Your task to perform on an android device: Clear the shopping cart on newegg. Add logitech g910 to the cart on newegg Image 0: 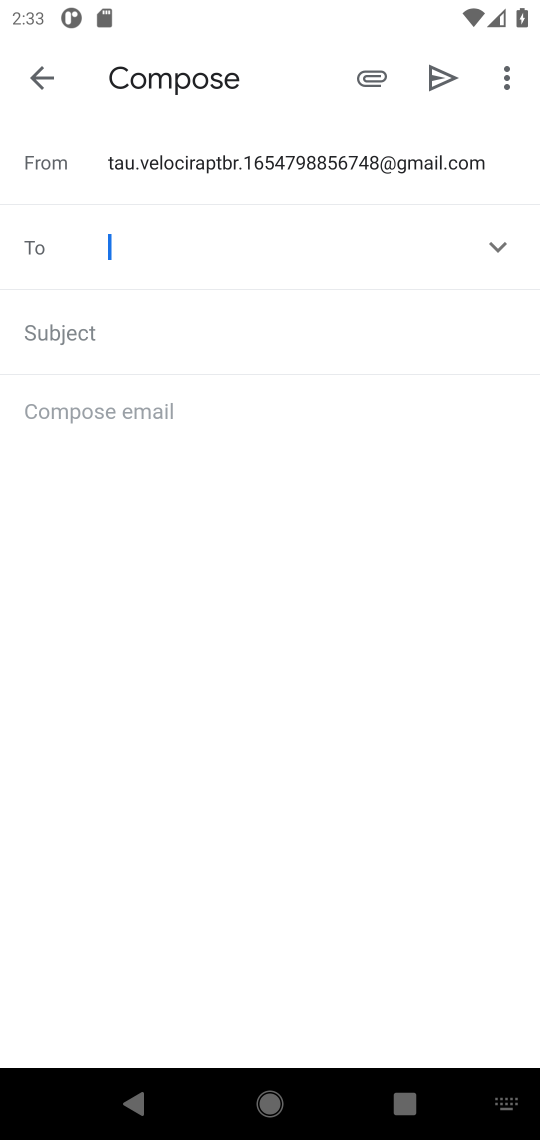
Step 0: press home button
Your task to perform on an android device: Clear the shopping cart on newegg. Add logitech g910 to the cart on newegg Image 1: 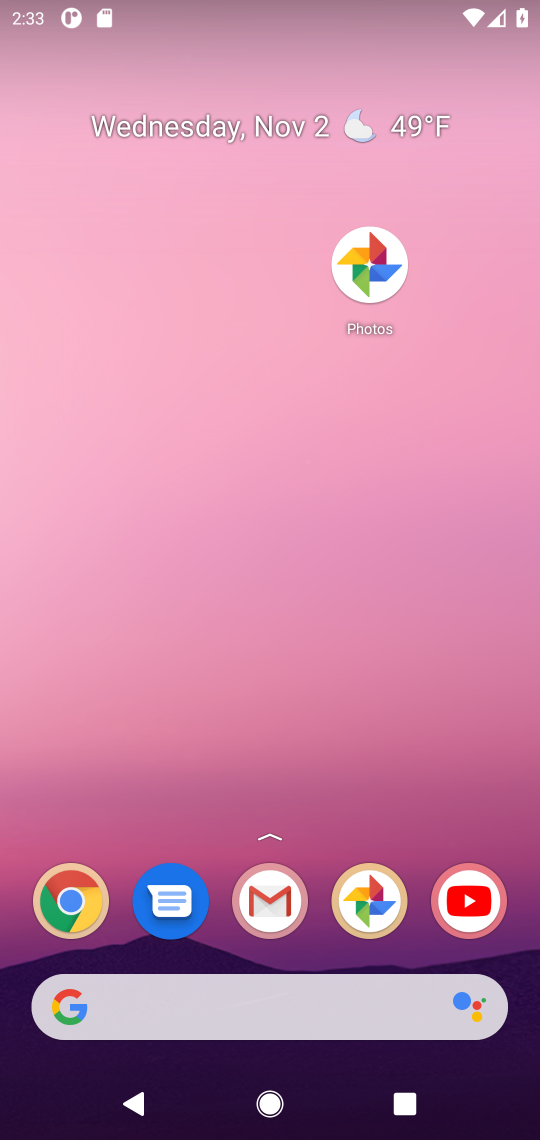
Step 1: drag from (333, 946) to (411, 85)
Your task to perform on an android device: Clear the shopping cart on newegg. Add logitech g910 to the cart on newegg Image 2: 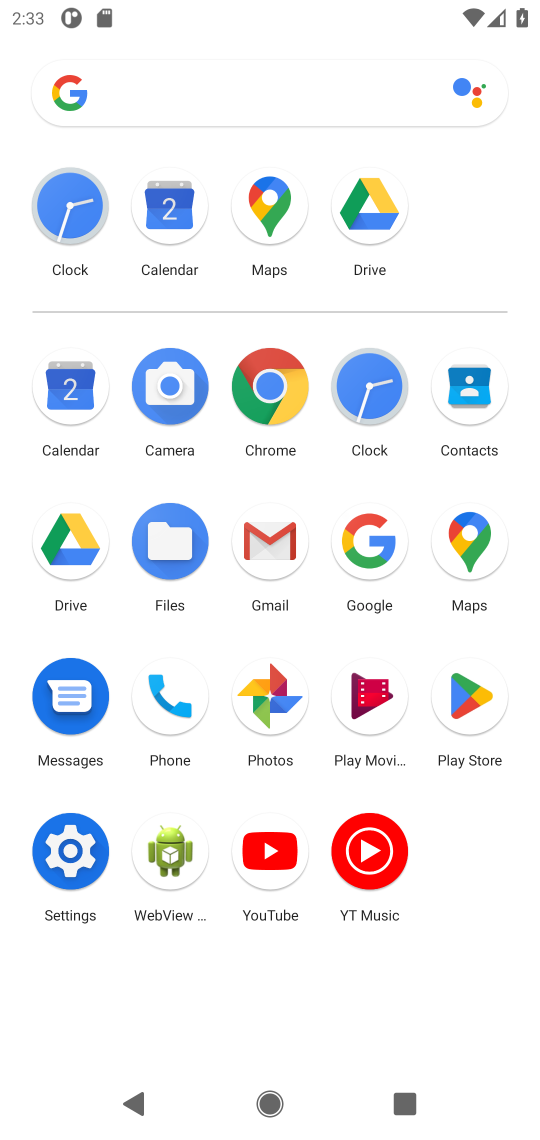
Step 2: click (279, 385)
Your task to perform on an android device: Clear the shopping cart on newegg. Add logitech g910 to the cart on newegg Image 3: 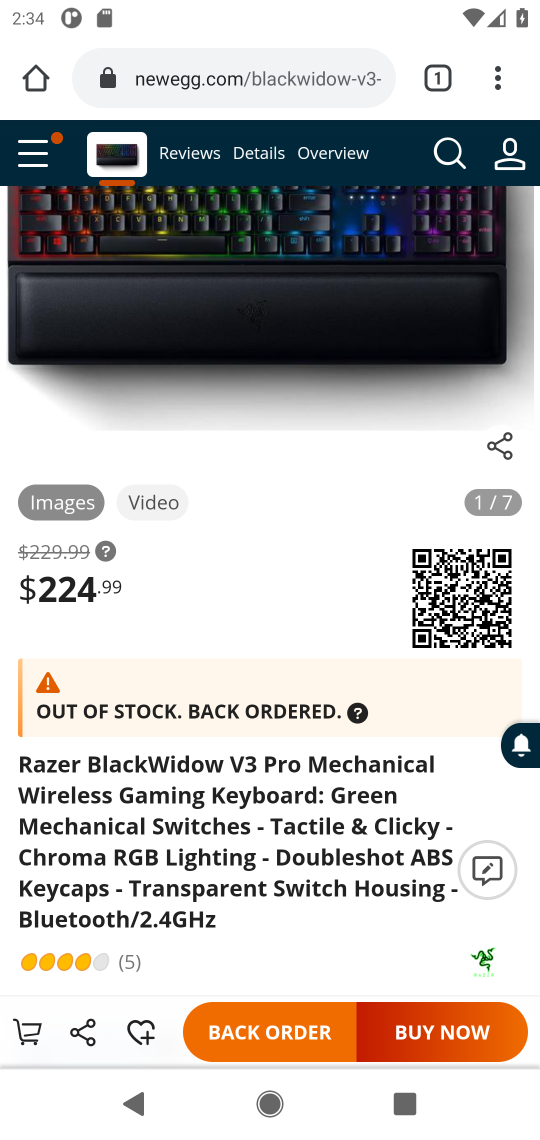
Step 3: drag from (379, 334) to (340, 835)
Your task to perform on an android device: Clear the shopping cart on newegg. Add logitech g910 to the cart on newegg Image 4: 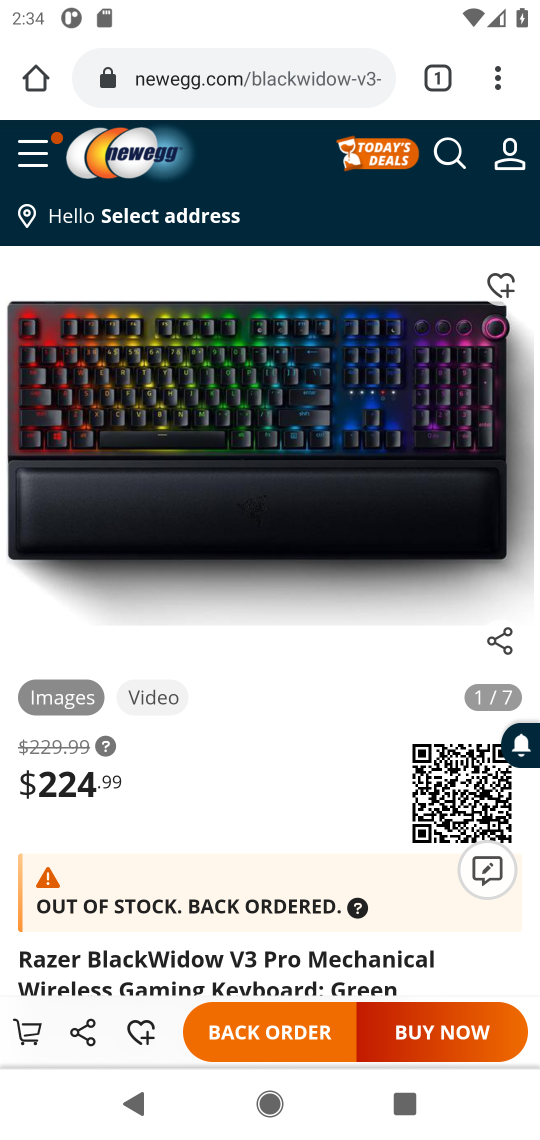
Step 4: click (43, 153)
Your task to perform on an android device: Clear the shopping cart on newegg. Add logitech g910 to the cart on newegg Image 5: 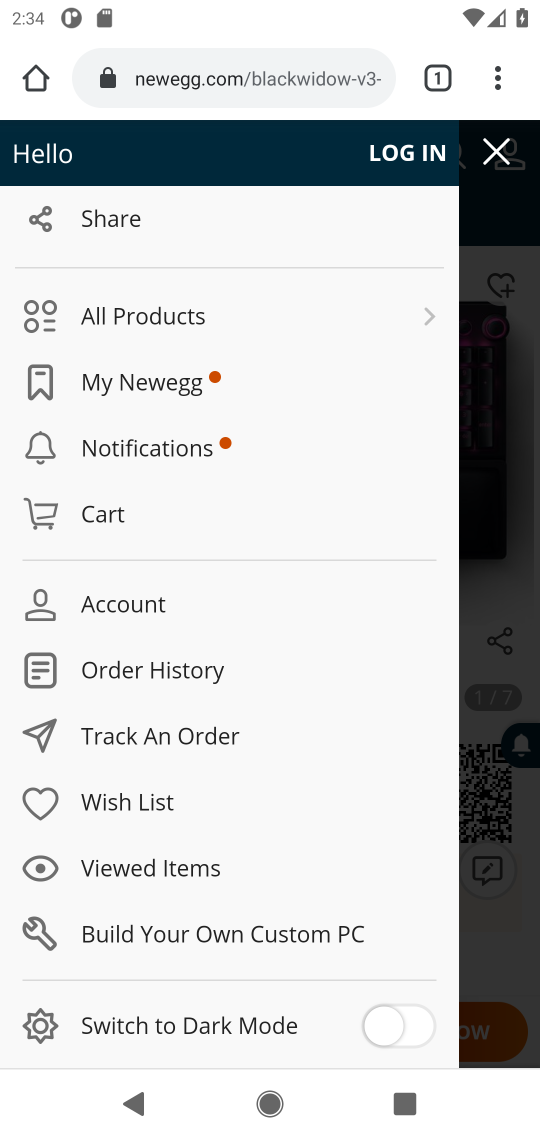
Step 5: click (112, 518)
Your task to perform on an android device: Clear the shopping cart on newegg. Add logitech g910 to the cart on newegg Image 6: 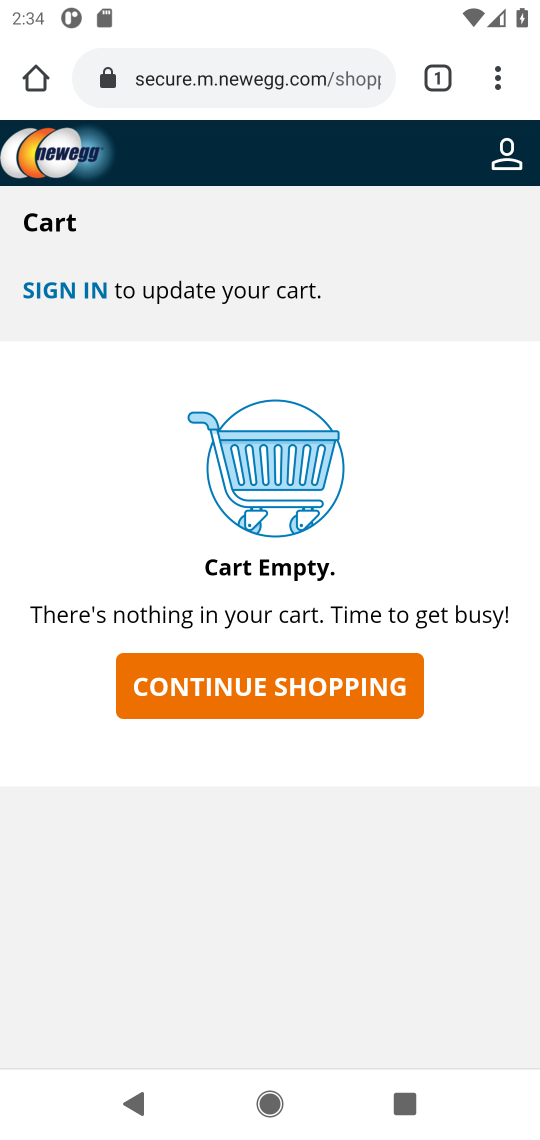
Step 6: click (346, 695)
Your task to perform on an android device: Clear the shopping cart on newegg. Add logitech g910 to the cart on newegg Image 7: 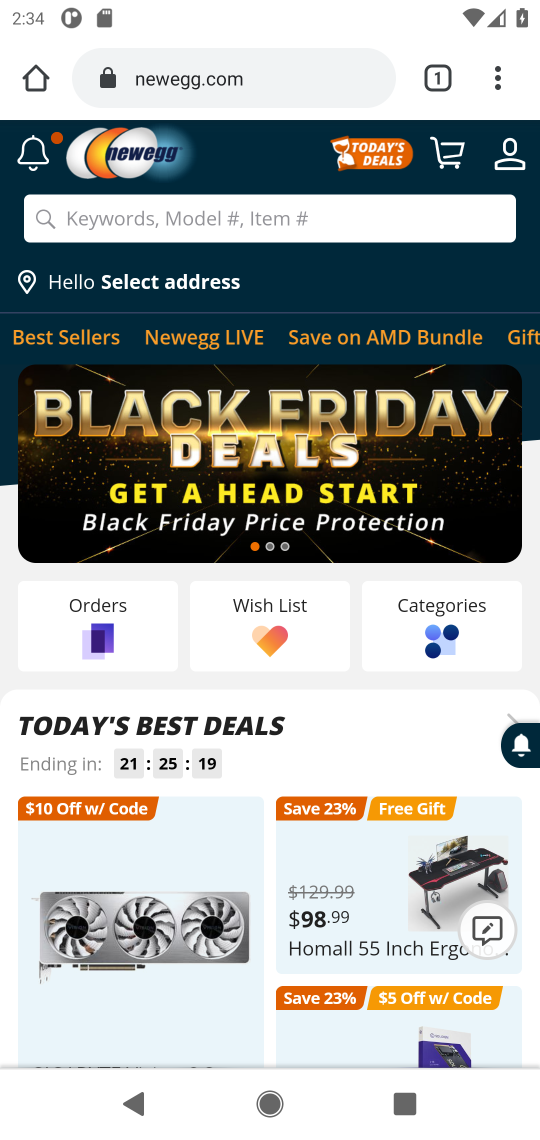
Step 7: click (344, 223)
Your task to perform on an android device: Clear the shopping cart on newegg. Add logitech g910 to the cart on newegg Image 8: 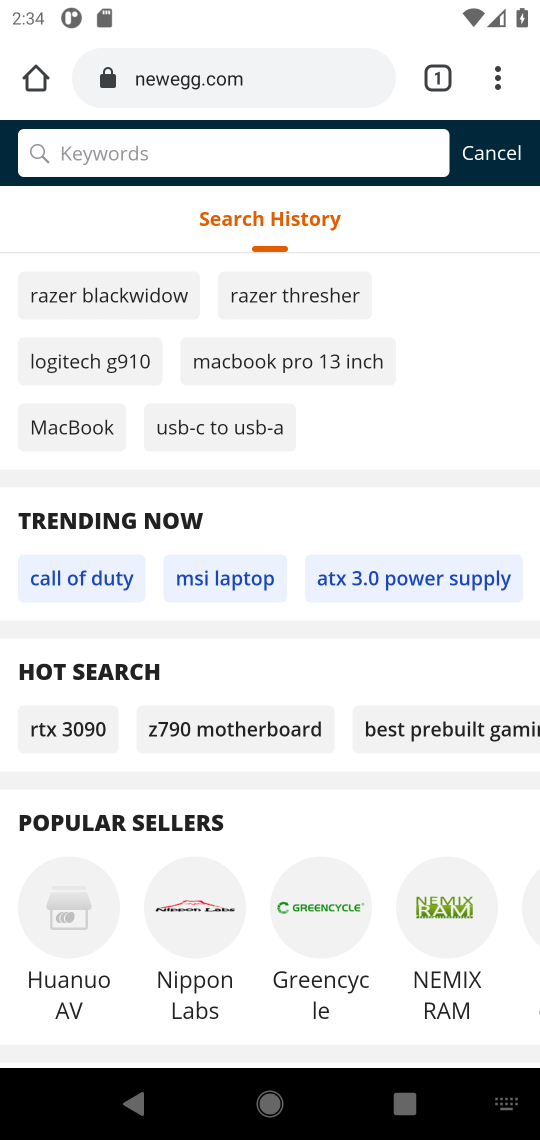
Step 8: type "logitech g910"
Your task to perform on an android device: Clear the shopping cart on newegg. Add logitech g910 to the cart on newegg Image 9: 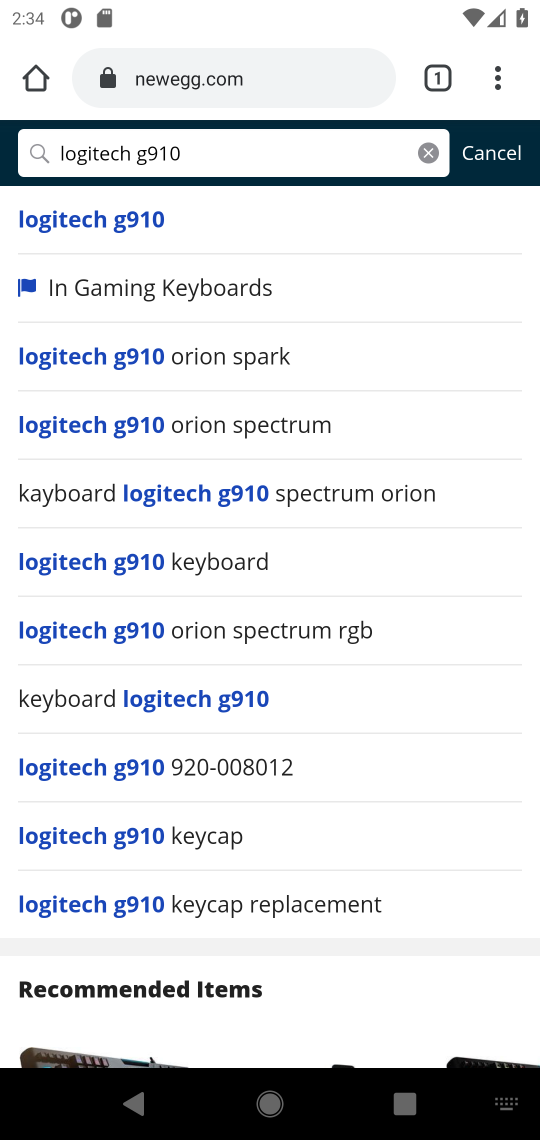
Step 9: press enter
Your task to perform on an android device: Clear the shopping cart on newegg. Add logitech g910 to the cart on newegg Image 10: 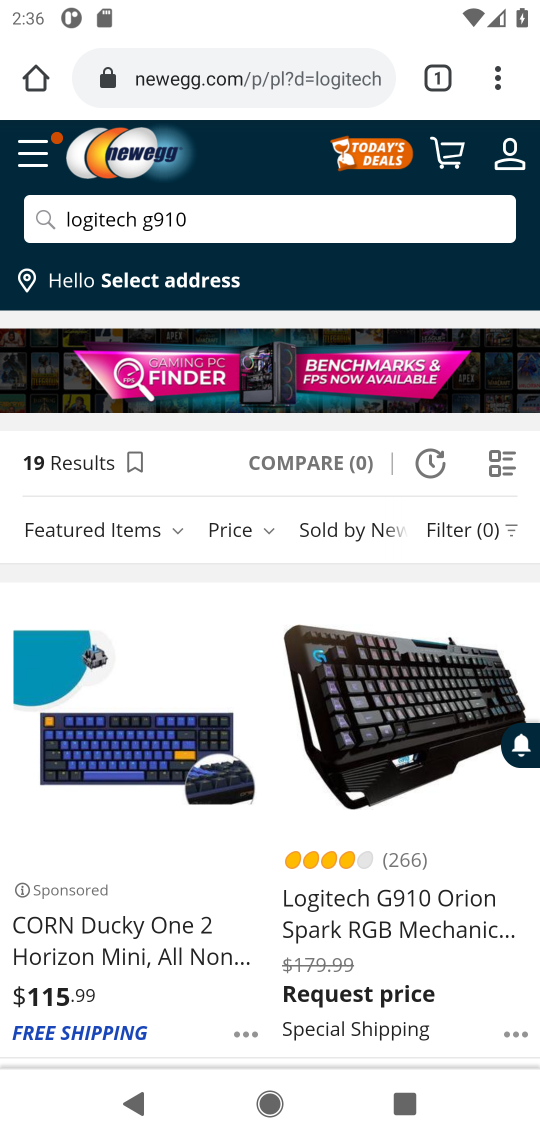
Step 10: click (401, 704)
Your task to perform on an android device: Clear the shopping cart on newegg. Add logitech g910 to the cart on newegg Image 11: 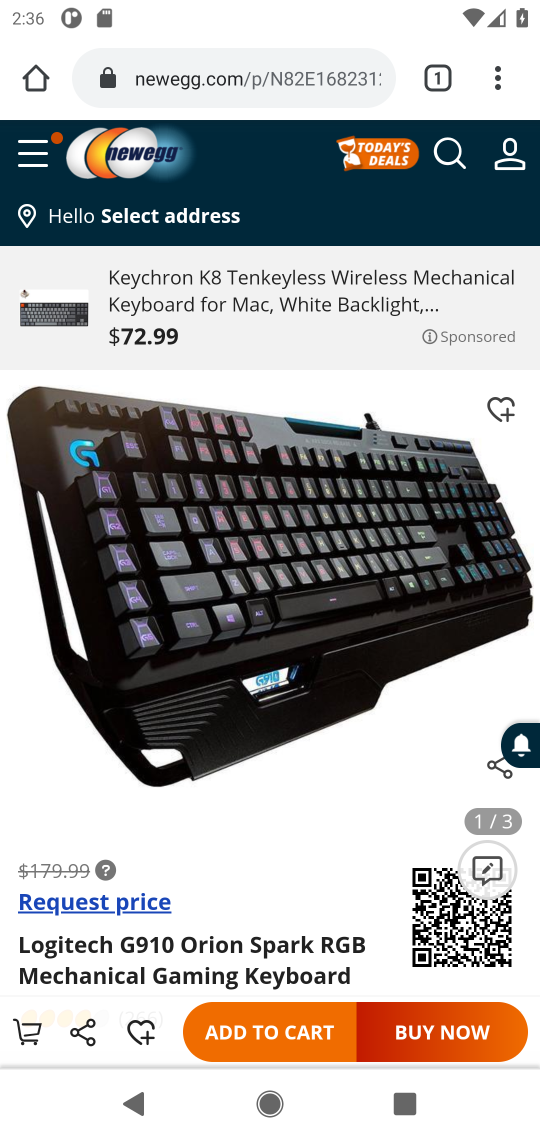
Step 11: click (283, 1036)
Your task to perform on an android device: Clear the shopping cart on newegg. Add logitech g910 to the cart on newegg Image 12: 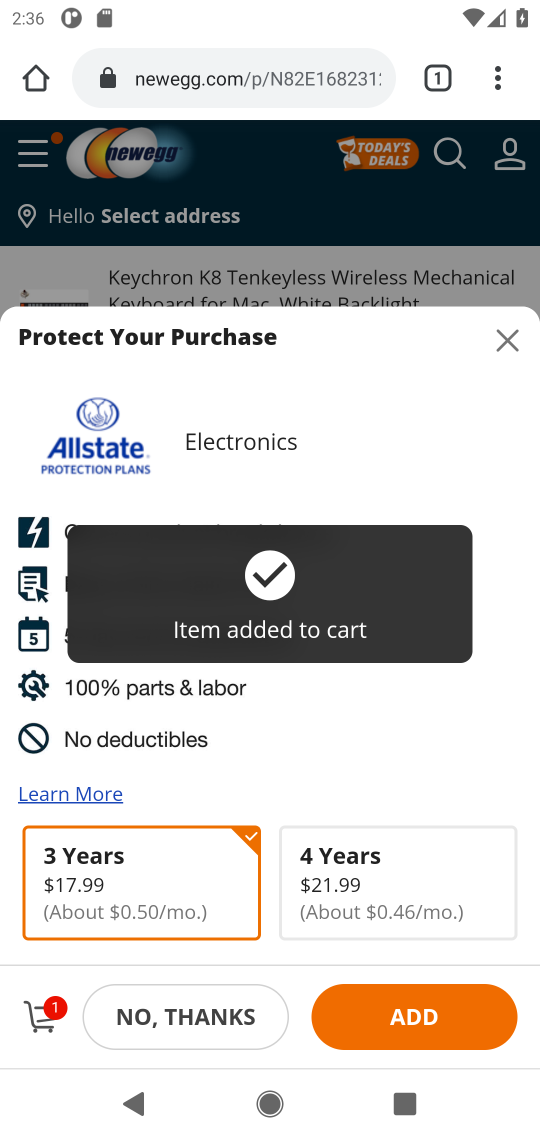
Step 12: task complete